Your task to perform on an android device: Go to Yahoo.com Image 0: 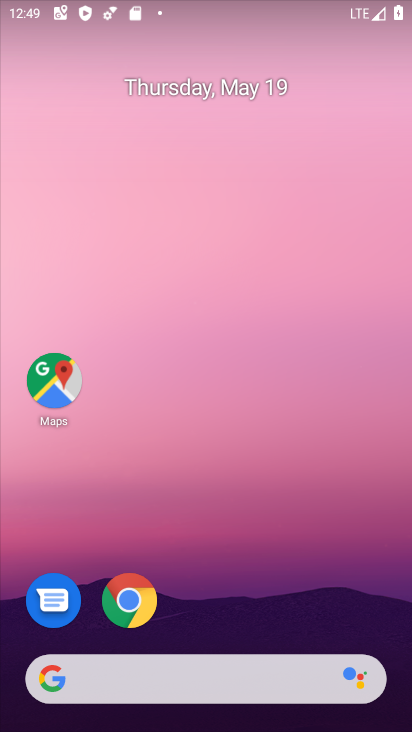
Step 0: click (130, 602)
Your task to perform on an android device: Go to Yahoo.com Image 1: 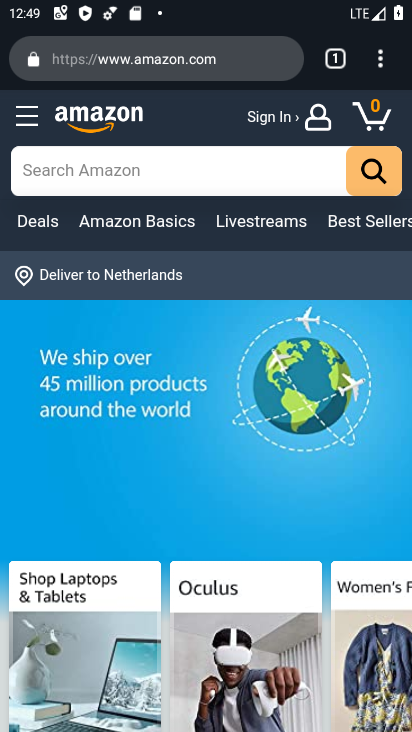
Step 1: click (381, 58)
Your task to perform on an android device: Go to Yahoo.com Image 2: 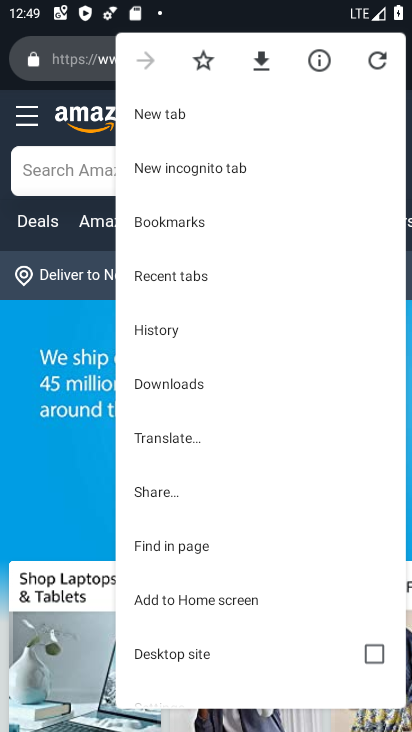
Step 2: click (165, 115)
Your task to perform on an android device: Go to Yahoo.com Image 3: 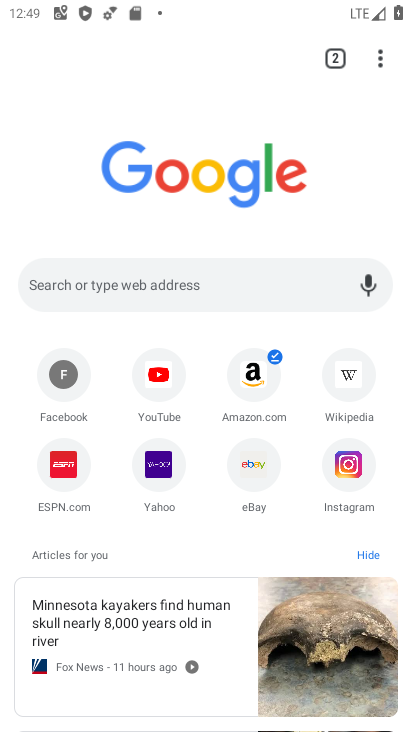
Step 3: click (156, 460)
Your task to perform on an android device: Go to Yahoo.com Image 4: 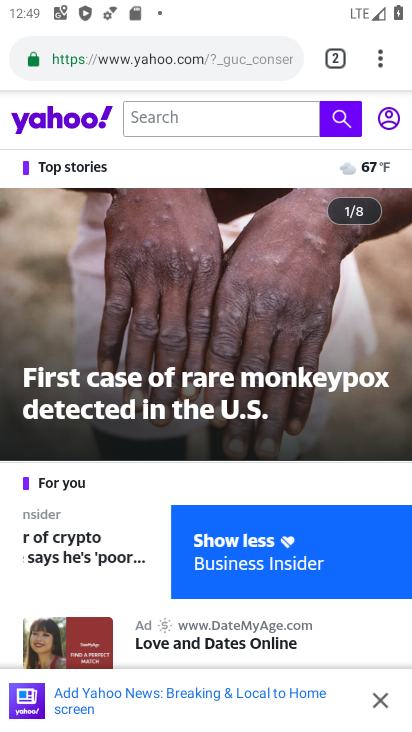
Step 4: task complete